Your task to perform on an android device: Play the last video I watched on Youtube Image 0: 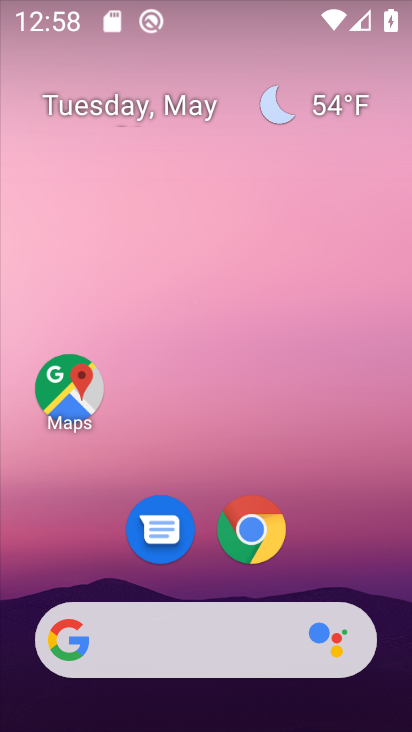
Step 0: drag from (335, 555) to (341, 302)
Your task to perform on an android device: Play the last video I watched on Youtube Image 1: 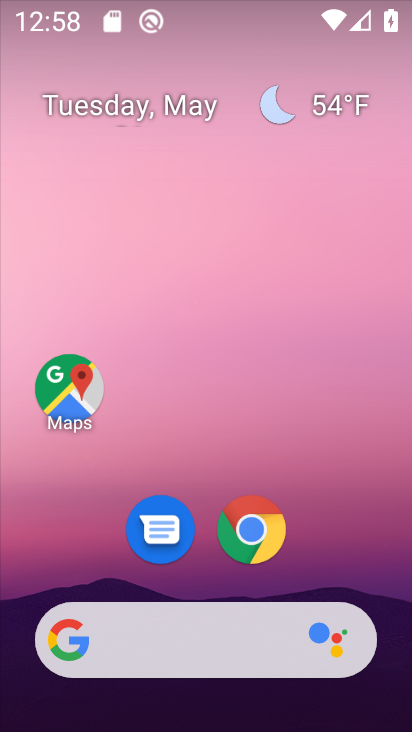
Step 1: drag from (337, 514) to (328, 211)
Your task to perform on an android device: Play the last video I watched on Youtube Image 2: 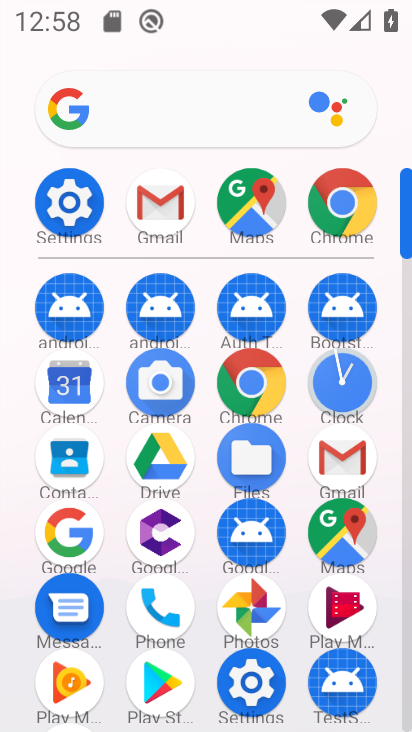
Step 2: drag from (289, 611) to (302, 289)
Your task to perform on an android device: Play the last video I watched on Youtube Image 3: 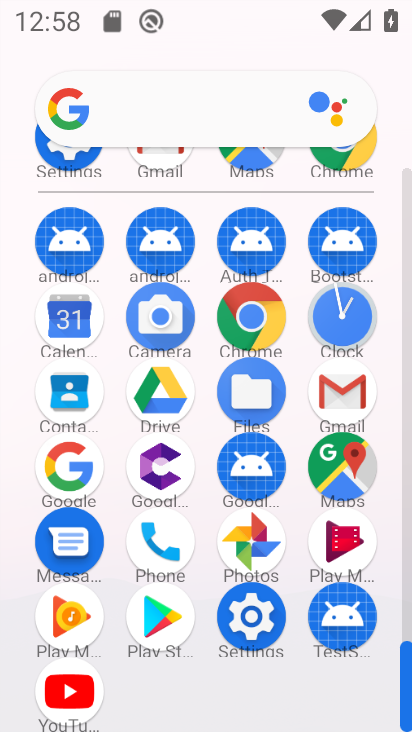
Step 3: click (64, 685)
Your task to perform on an android device: Play the last video I watched on Youtube Image 4: 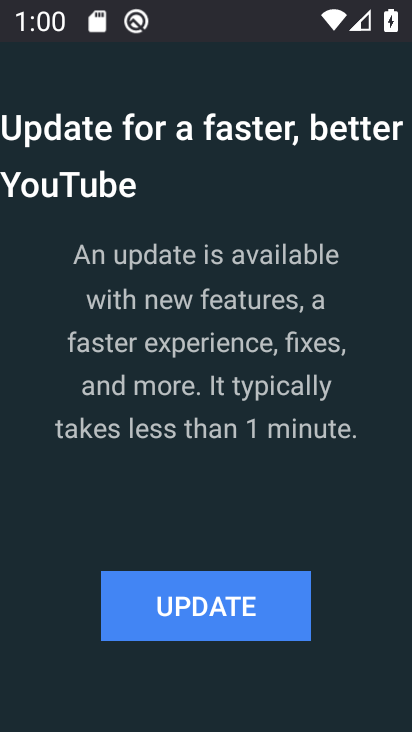
Step 4: task complete